Your task to perform on an android device: Go to internet settings Image 0: 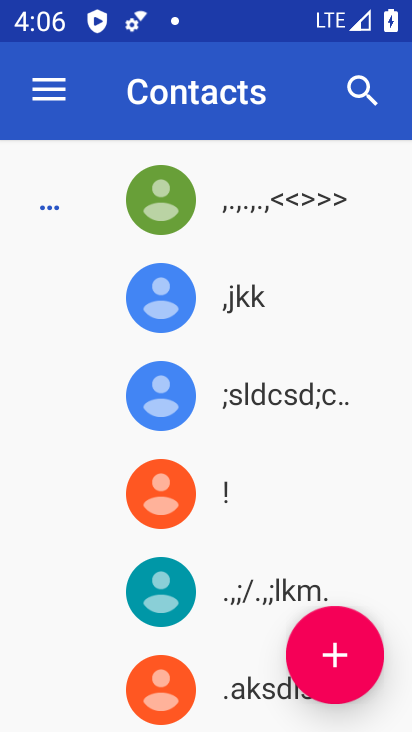
Step 0: press home button
Your task to perform on an android device: Go to internet settings Image 1: 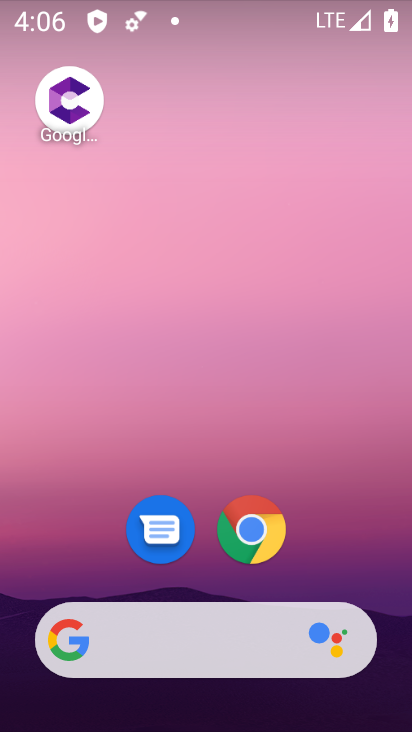
Step 1: drag from (210, 590) to (222, 44)
Your task to perform on an android device: Go to internet settings Image 2: 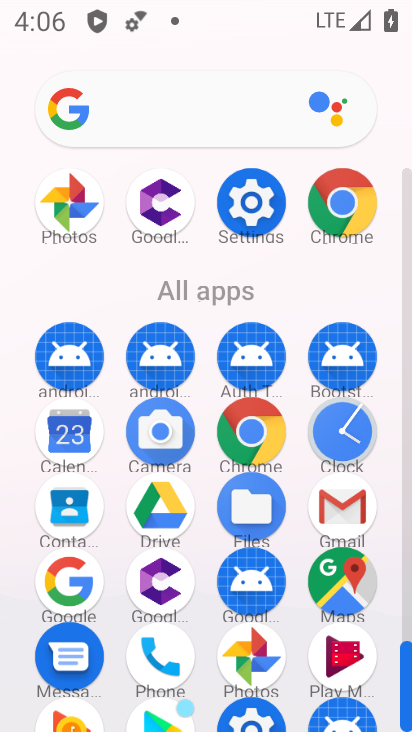
Step 2: click (244, 211)
Your task to perform on an android device: Go to internet settings Image 3: 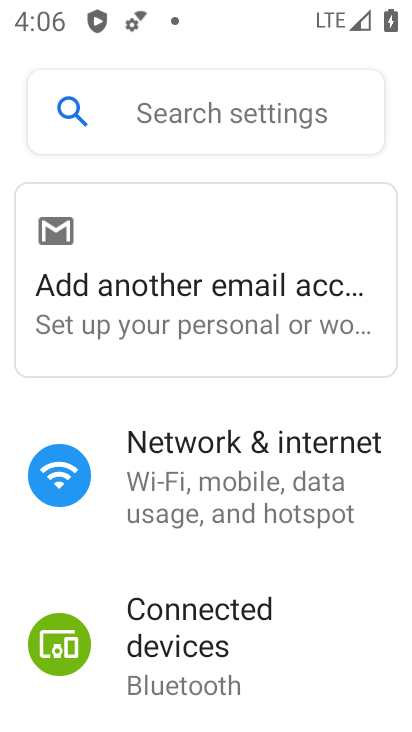
Step 3: click (216, 495)
Your task to perform on an android device: Go to internet settings Image 4: 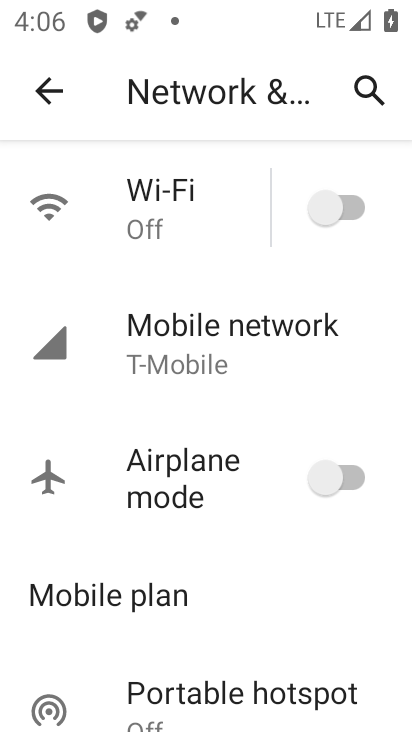
Step 4: click (138, 323)
Your task to perform on an android device: Go to internet settings Image 5: 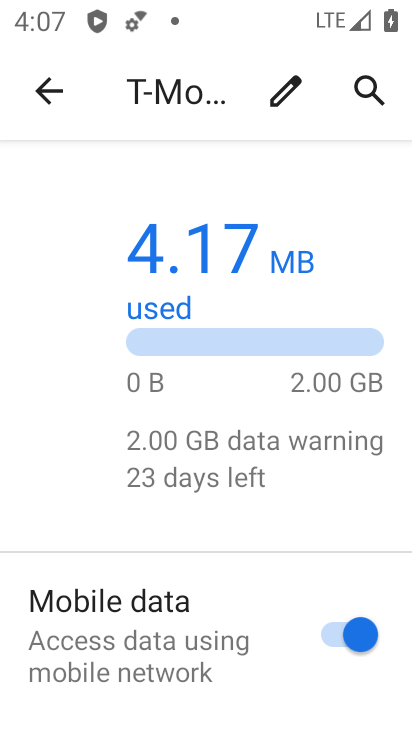
Step 5: task complete